Your task to perform on an android device: change notifications settings Image 0: 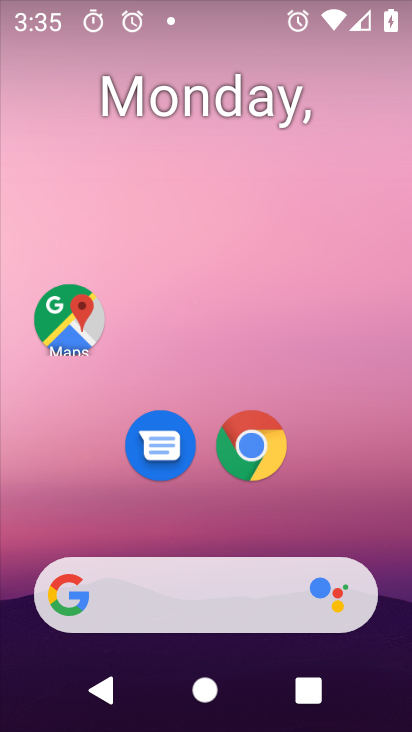
Step 0: drag from (276, 565) to (273, 133)
Your task to perform on an android device: change notifications settings Image 1: 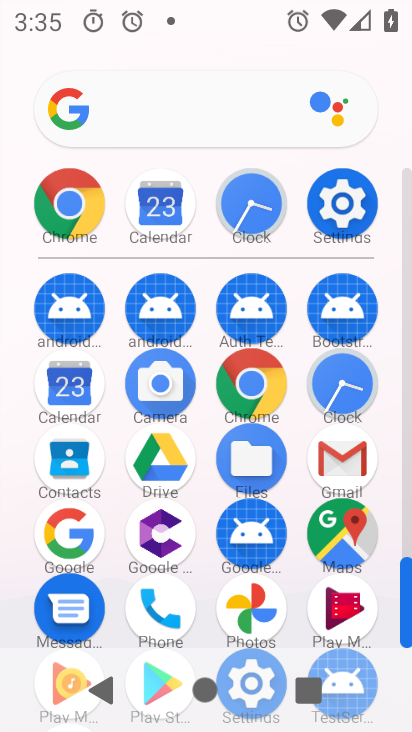
Step 1: click (357, 198)
Your task to perform on an android device: change notifications settings Image 2: 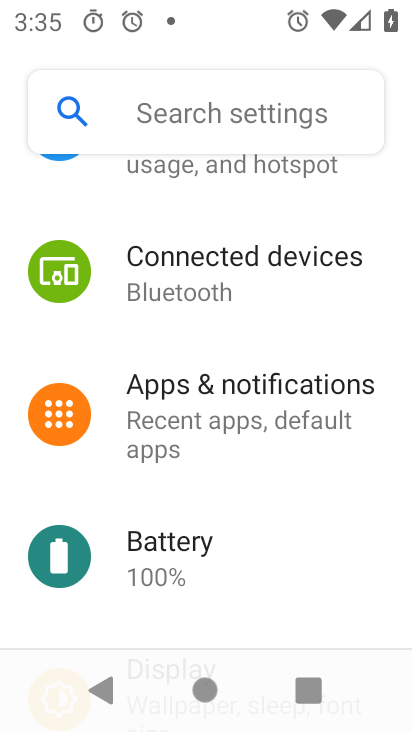
Step 2: drag from (177, 493) to (209, 247)
Your task to perform on an android device: change notifications settings Image 3: 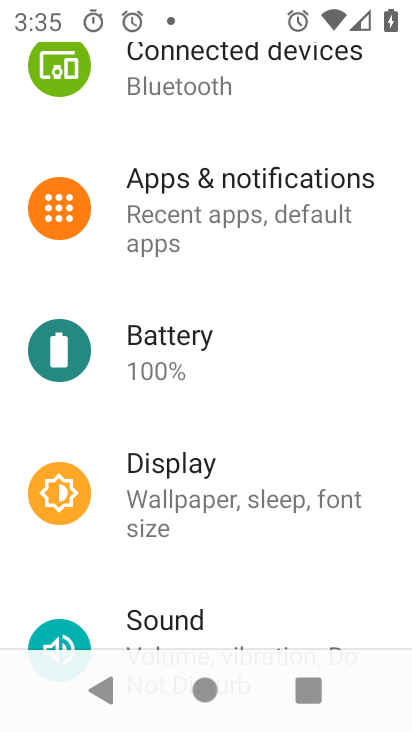
Step 3: click (177, 615)
Your task to perform on an android device: change notifications settings Image 4: 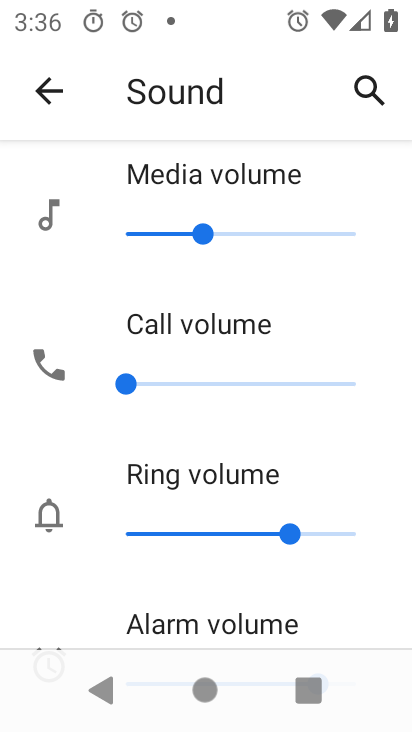
Step 4: drag from (121, 621) to (155, 216)
Your task to perform on an android device: change notifications settings Image 5: 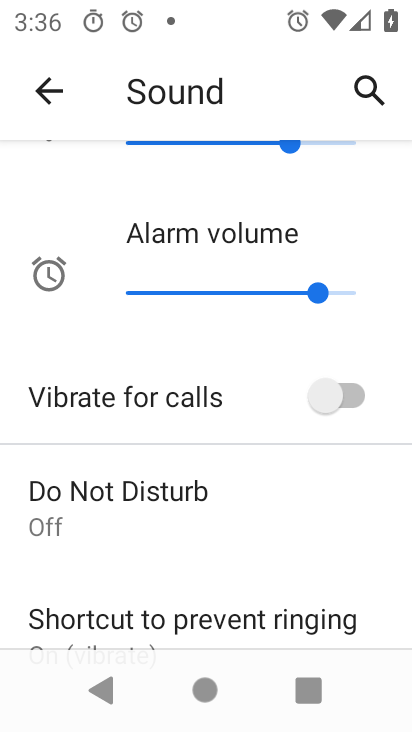
Step 5: click (328, 401)
Your task to perform on an android device: change notifications settings Image 6: 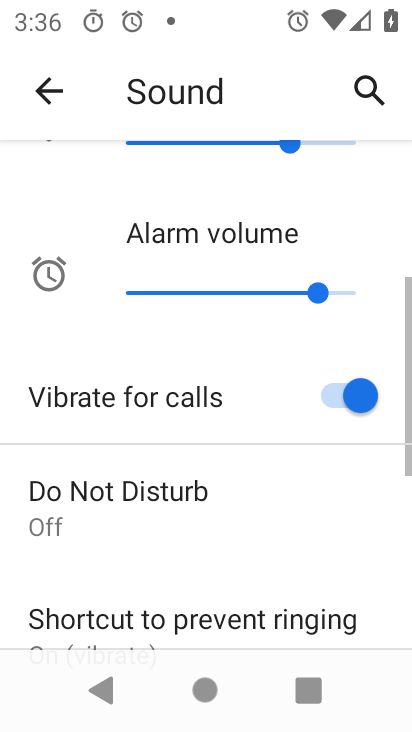
Step 6: task complete